Your task to perform on an android device: turn on notifications settings in the gmail app Image 0: 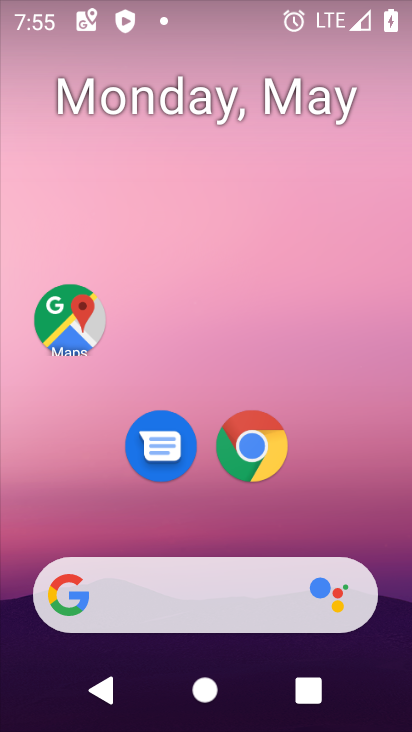
Step 0: drag from (350, 493) to (234, 107)
Your task to perform on an android device: turn on notifications settings in the gmail app Image 1: 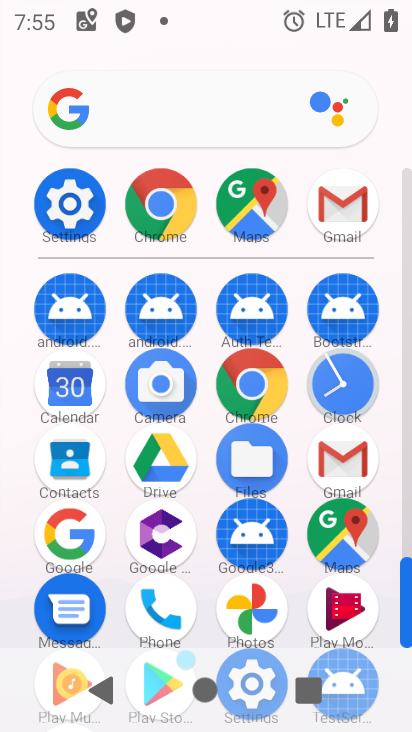
Step 1: click (340, 201)
Your task to perform on an android device: turn on notifications settings in the gmail app Image 2: 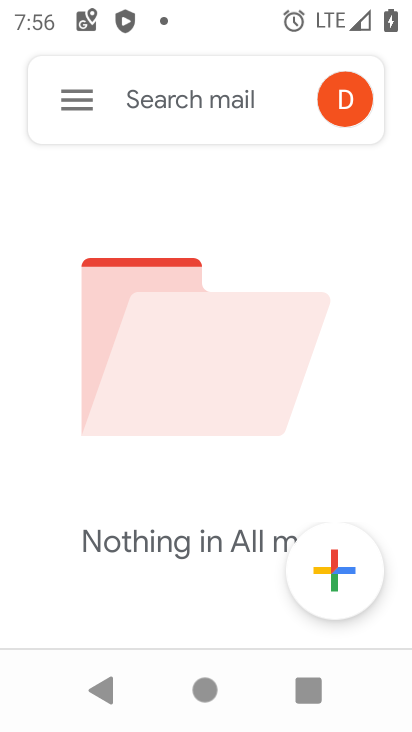
Step 2: click (70, 99)
Your task to perform on an android device: turn on notifications settings in the gmail app Image 3: 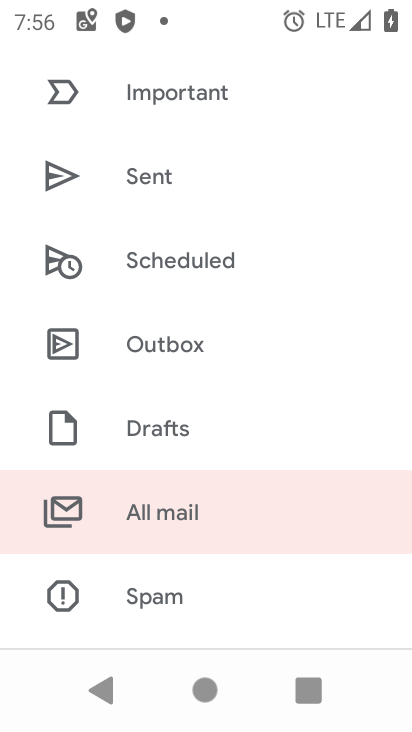
Step 3: drag from (249, 513) to (224, 149)
Your task to perform on an android device: turn on notifications settings in the gmail app Image 4: 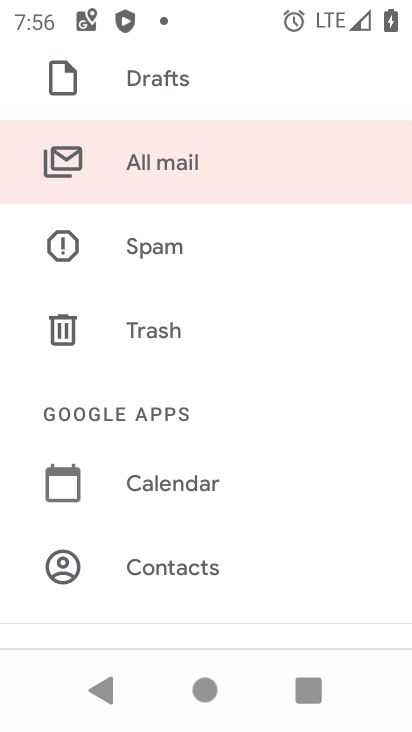
Step 4: drag from (253, 498) to (236, 187)
Your task to perform on an android device: turn on notifications settings in the gmail app Image 5: 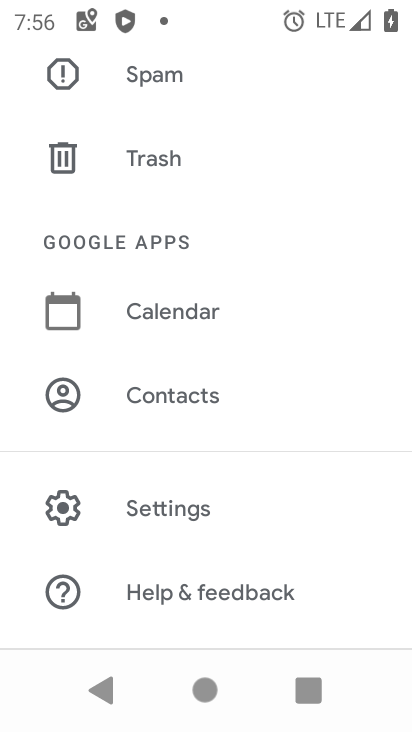
Step 5: click (154, 511)
Your task to perform on an android device: turn on notifications settings in the gmail app Image 6: 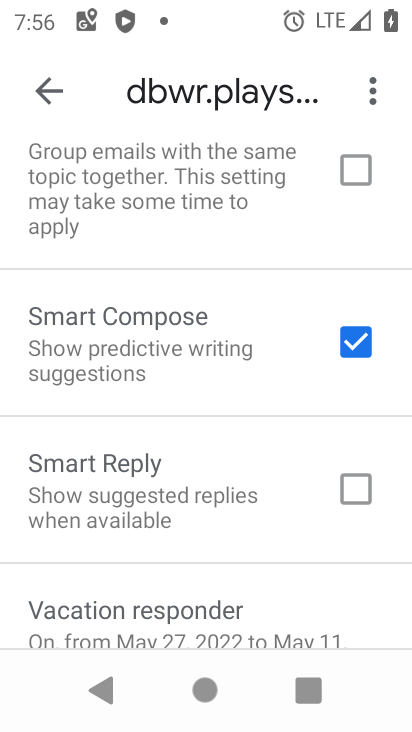
Step 6: click (34, 93)
Your task to perform on an android device: turn on notifications settings in the gmail app Image 7: 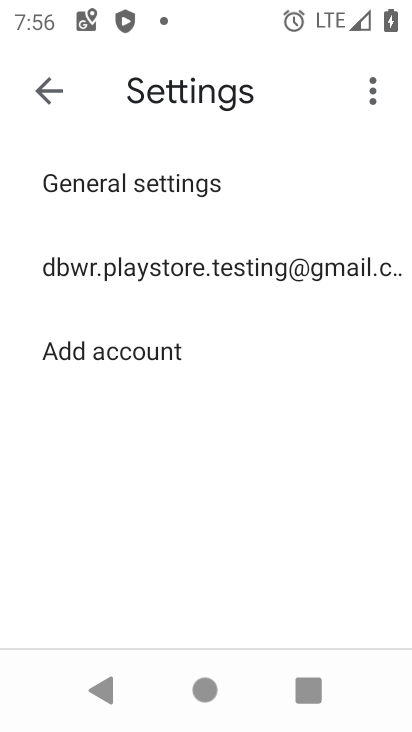
Step 7: click (121, 181)
Your task to perform on an android device: turn on notifications settings in the gmail app Image 8: 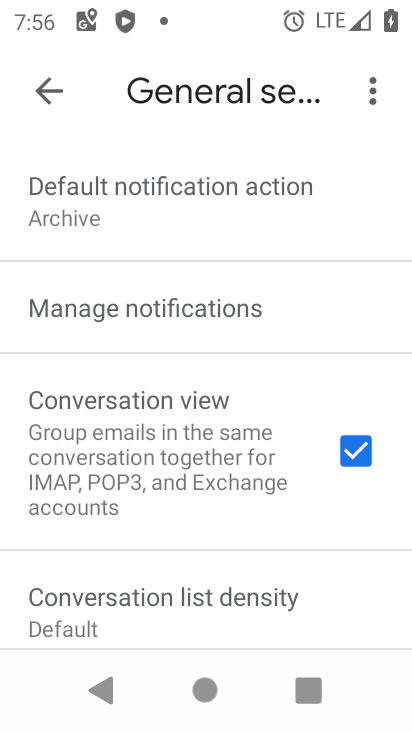
Step 8: click (156, 305)
Your task to perform on an android device: turn on notifications settings in the gmail app Image 9: 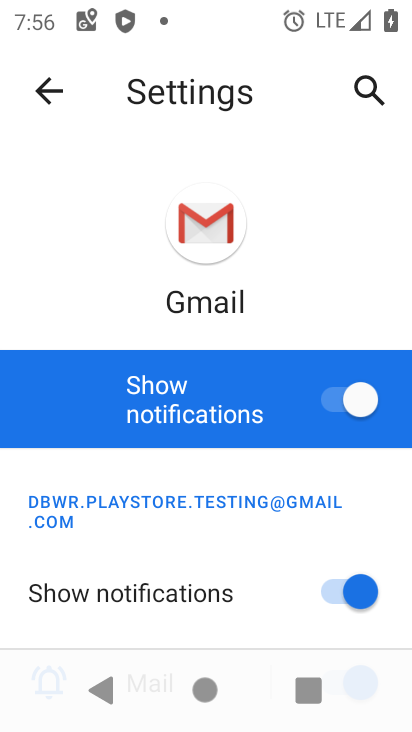
Step 9: task complete